Your task to perform on an android device: What's the weather today? Image 0: 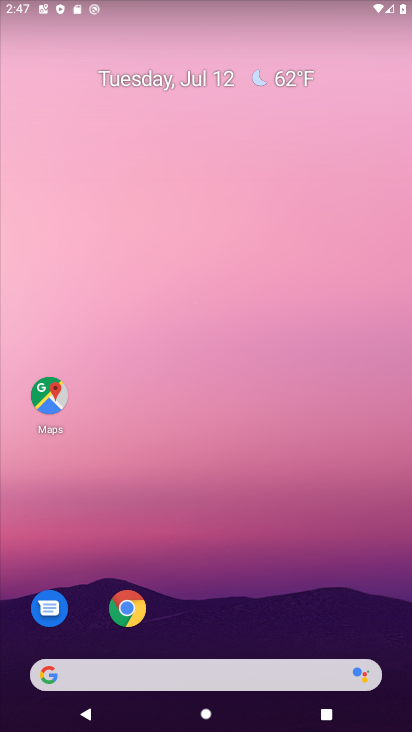
Step 0: click (161, 674)
Your task to perform on an android device: What's the weather today? Image 1: 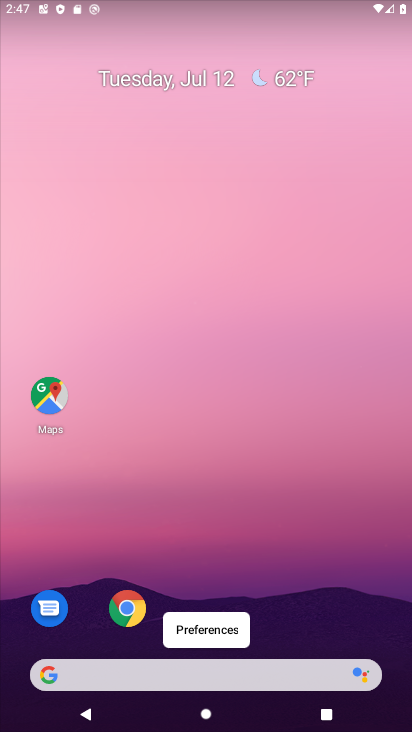
Step 1: click (155, 675)
Your task to perform on an android device: What's the weather today? Image 2: 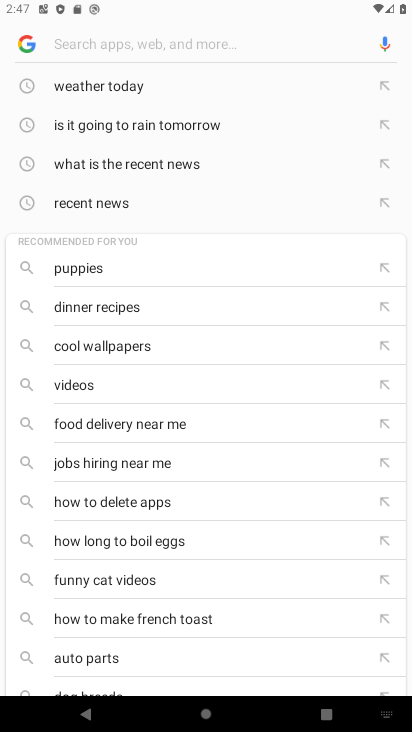
Step 2: click (122, 87)
Your task to perform on an android device: What's the weather today? Image 3: 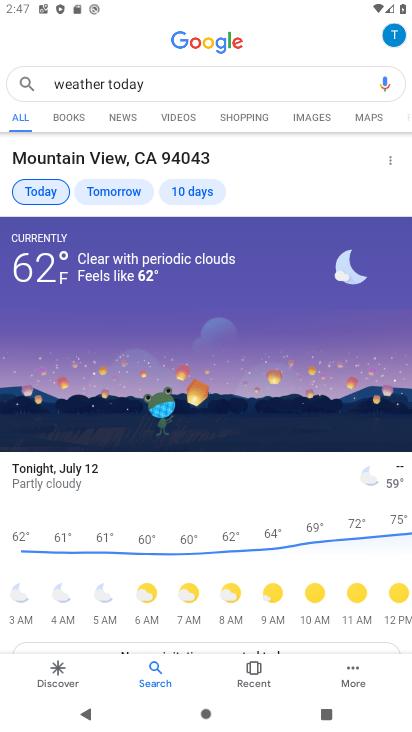
Step 3: task complete